Your task to perform on an android device: toggle pop-ups in chrome Image 0: 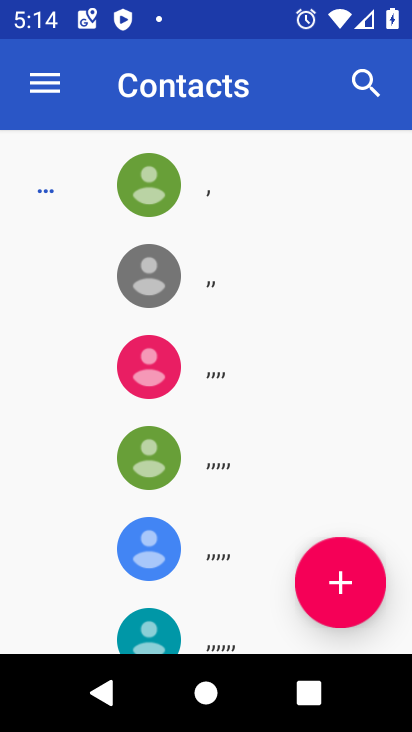
Step 0: click (393, 621)
Your task to perform on an android device: toggle pop-ups in chrome Image 1: 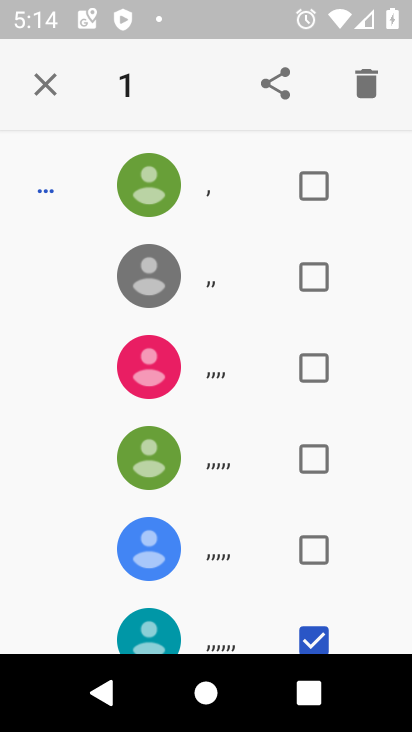
Step 1: press home button
Your task to perform on an android device: toggle pop-ups in chrome Image 2: 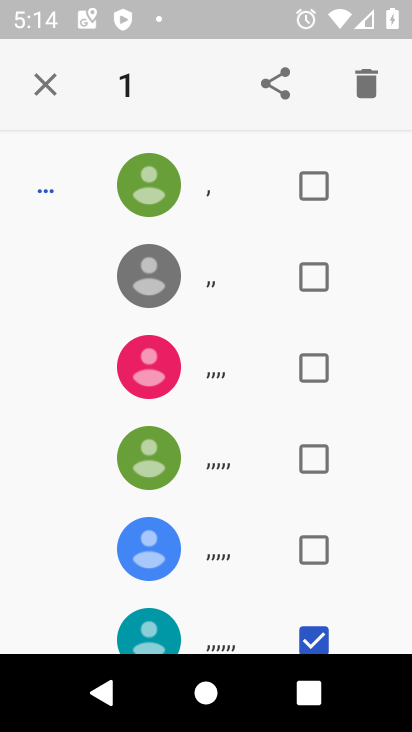
Step 2: drag from (410, 630) to (394, 467)
Your task to perform on an android device: toggle pop-ups in chrome Image 3: 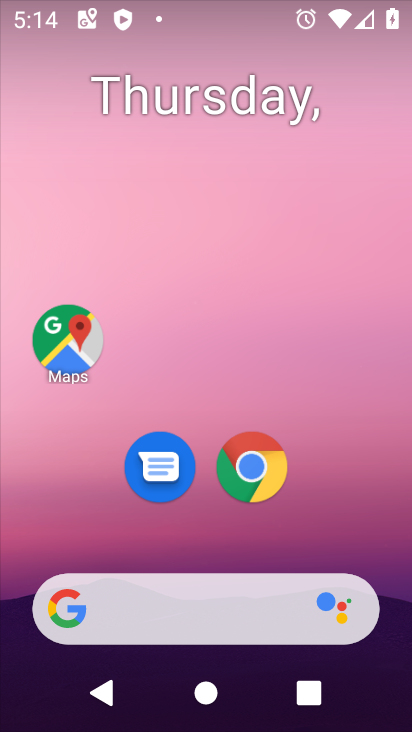
Step 3: click (249, 471)
Your task to perform on an android device: toggle pop-ups in chrome Image 4: 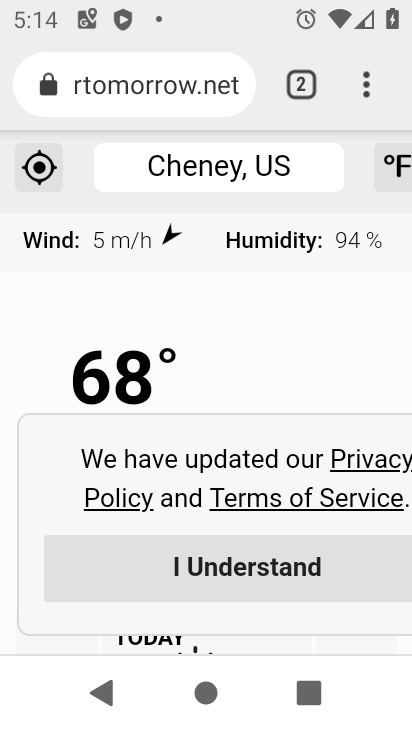
Step 4: click (379, 92)
Your task to perform on an android device: toggle pop-ups in chrome Image 5: 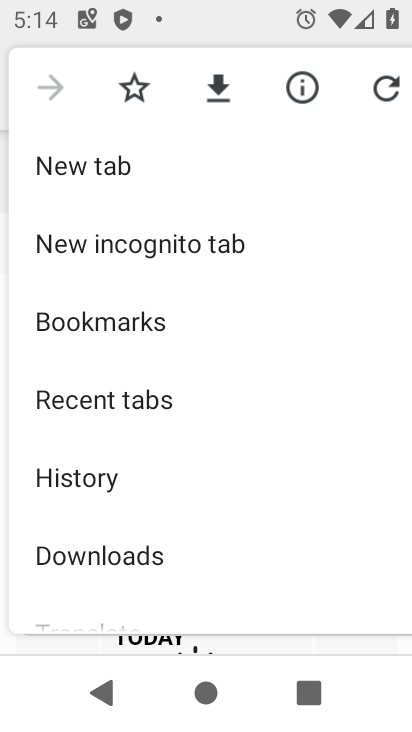
Step 5: drag from (259, 585) to (234, 85)
Your task to perform on an android device: toggle pop-ups in chrome Image 6: 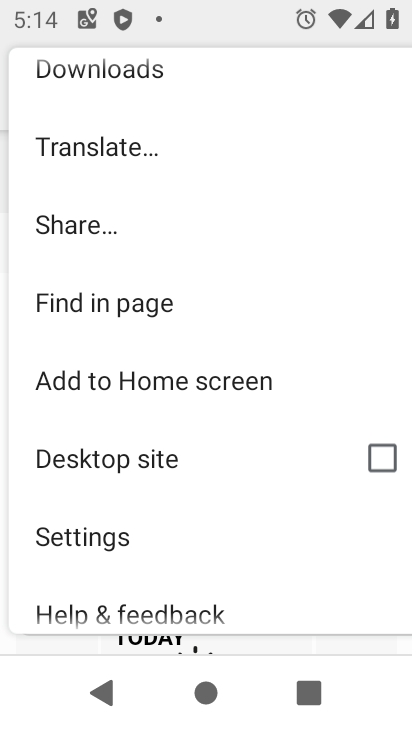
Step 6: click (215, 531)
Your task to perform on an android device: toggle pop-ups in chrome Image 7: 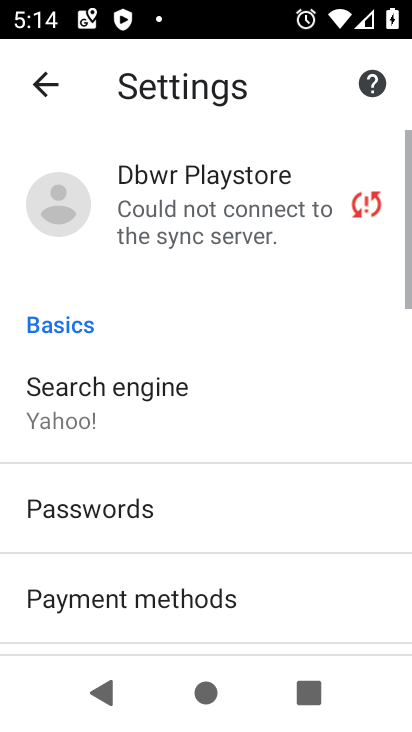
Step 7: drag from (258, 602) to (233, 86)
Your task to perform on an android device: toggle pop-ups in chrome Image 8: 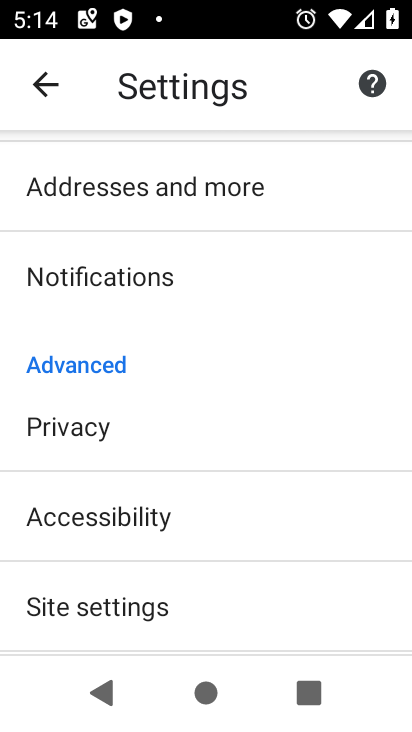
Step 8: click (226, 603)
Your task to perform on an android device: toggle pop-ups in chrome Image 9: 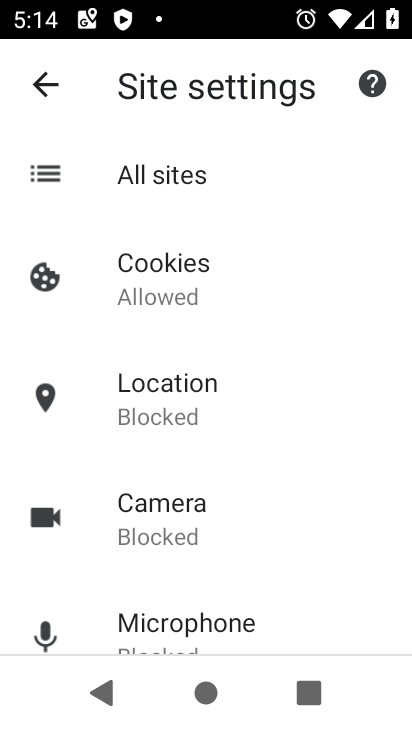
Step 9: drag from (296, 623) to (251, 287)
Your task to perform on an android device: toggle pop-ups in chrome Image 10: 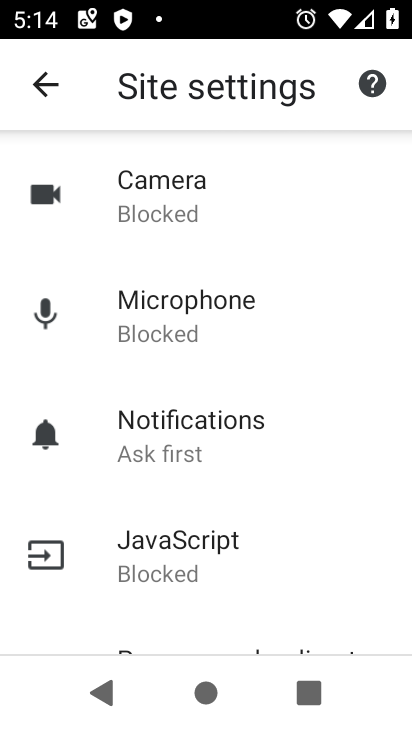
Step 10: drag from (282, 593) to (287, 331)
Your task to perform on an android device: toggle pop-ups in chrome Image 11: 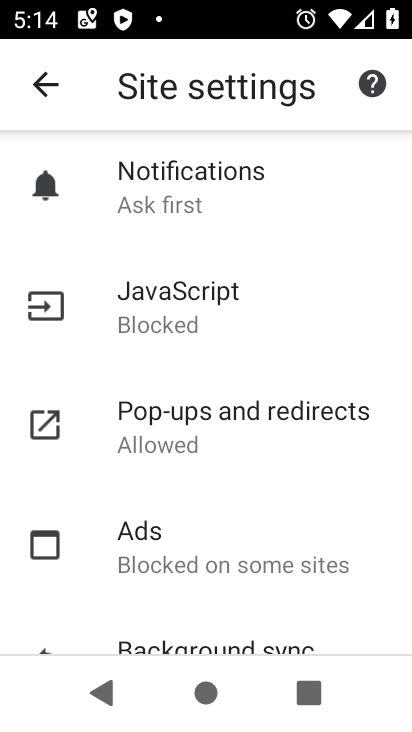
Step 11: click (269, 446)
Your task to perform on an android device: toggle pop-ups in chrome Image 12: 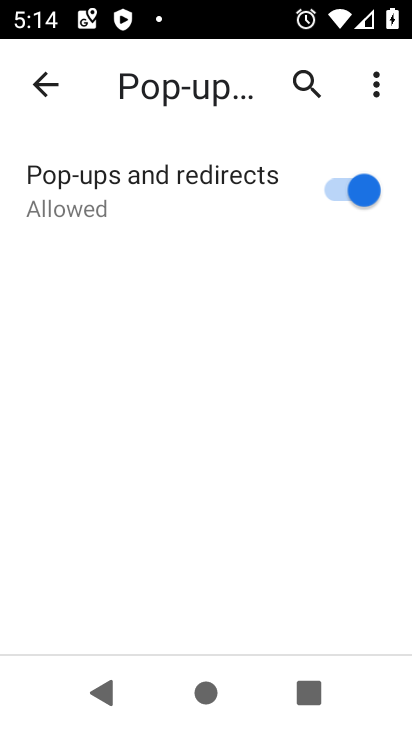
Step 12: task complete